Your task to perform on an android device: Open the calendar app, open the side menu, and click the "Day" option Image 0: 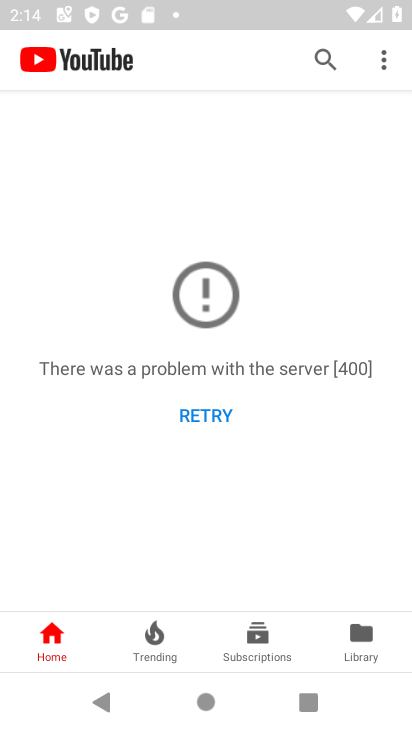
Step 0: press home button
Your task to perform on an android device: Open the calendar app, open the side menu, and click the "Day" option Image 1: 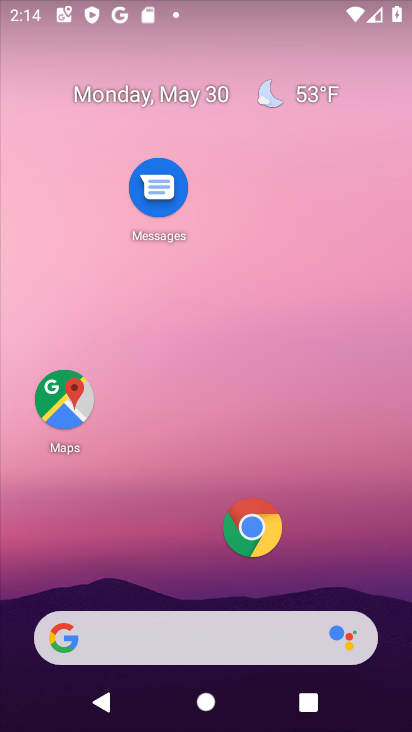
Step 1: drag from (181, 558) to (262, 75)
Your task to perform on an android device: Open the calendar app, open the side menu, and click the "Day" option Image 2: 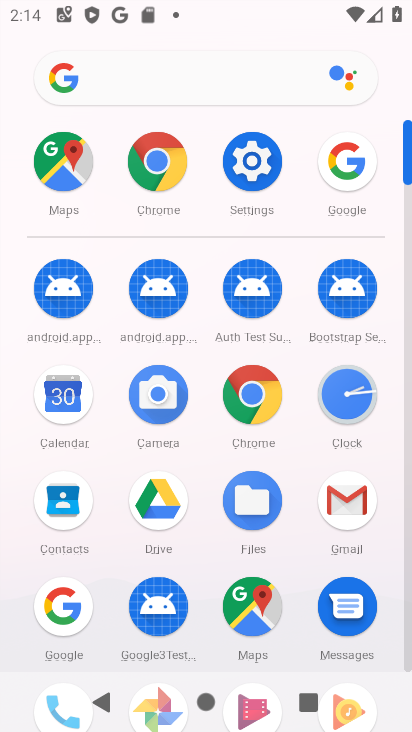
Step 2: click (73, 404)
Your task to perform on an android device: Open the calendar app, open the side menu, and click the "Day" option Image 3: 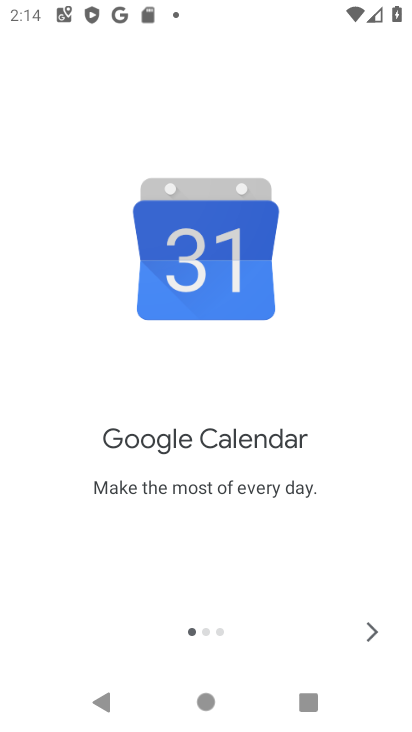
Step 3: click (356, 624)
Your task to perform on an android device: Open the calendar app, open the side menu, and click the "Day" option Image 4: 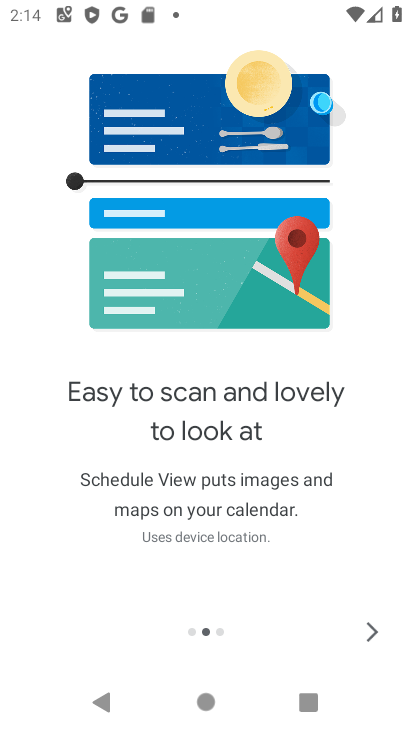
Step 4: click (355, 620)
Your task to perform on an android device: Open the calendar app, open the side menu, and click the "Day" option Image 5: 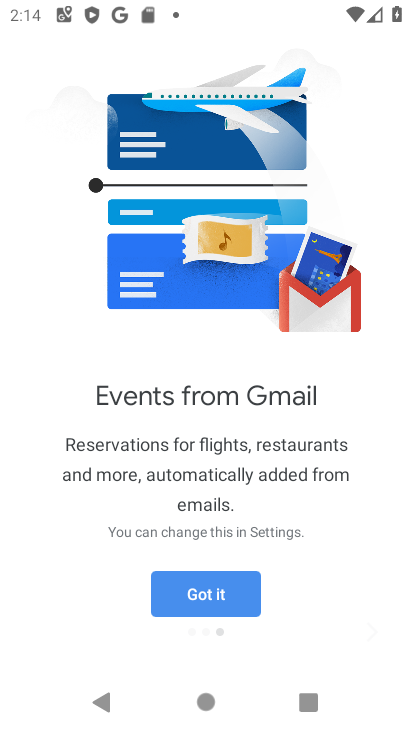
Step 5: click (352, 618)
Your task to perform on an android device: Open the calendar app, open the side menu, and click the "Day" option Image 6: 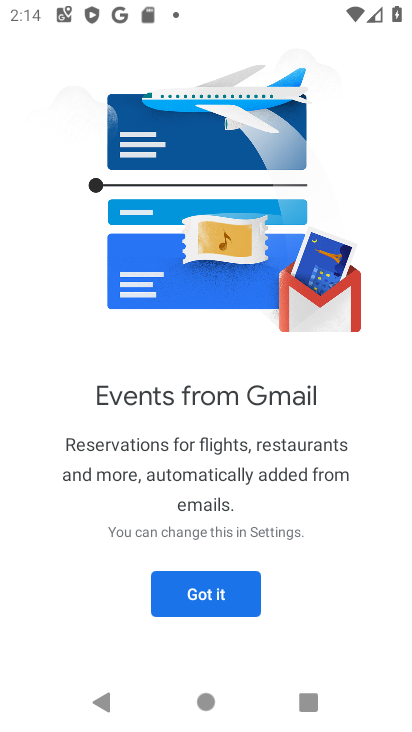
Step 6: click (249, 584)
Your task to perform on an android device: Open the calendar app, open the side menu, and click the "Day" option Image 7: 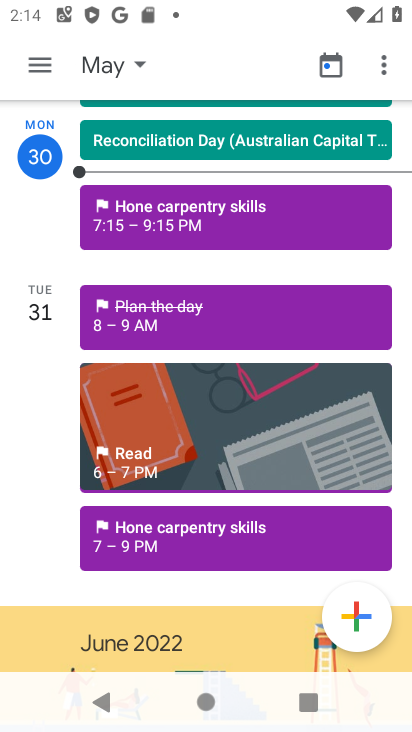
Step 7: click (47, 65)
Your task to perform on an android device: Open the calendar app, open the side menu, and click the "Day" option Image 8: 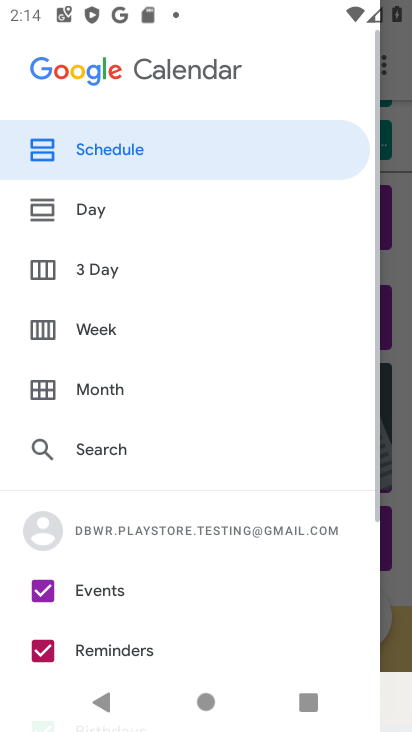
Step 8: click (102, 215)
Your task to perform on an android device: Open the calendar app, open the side menu, and click the "Day" option Image 9: 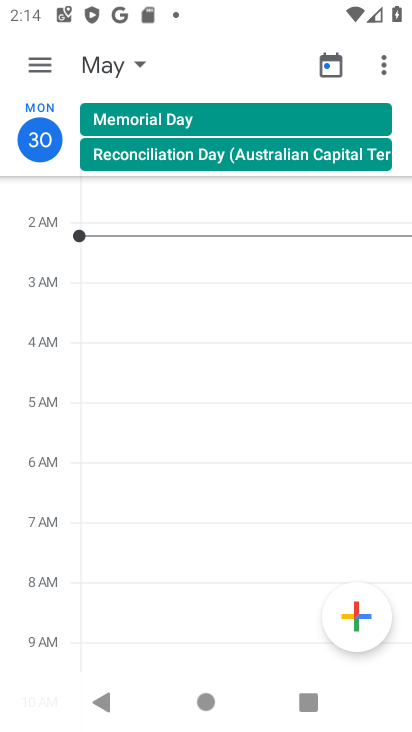
Step 9: task complete